Your task to perform on an android device: find snoozed emails in the gmail app Image 0: 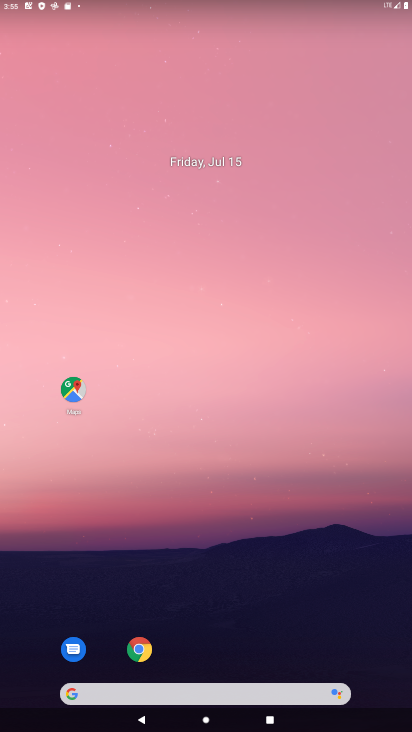
Step 0: drag from (308, 620) to (222, 128)
Your task to perform on an android device: find snoozed emails in the gmail app Image 1: 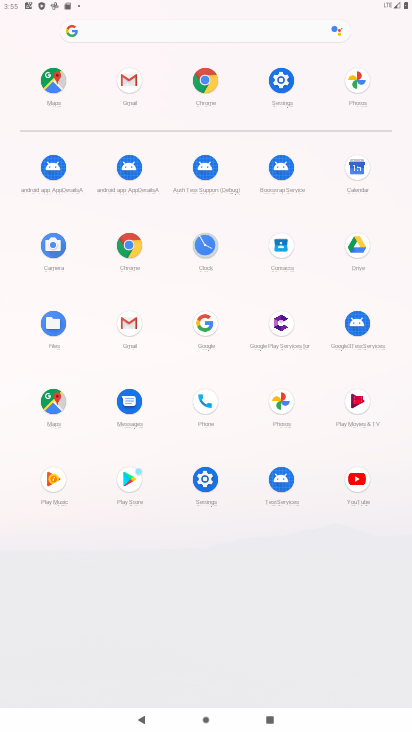
Step 1: click (130, 323)
Your task to perform on an android device: find snoozed emails in the gmail app Image 2: 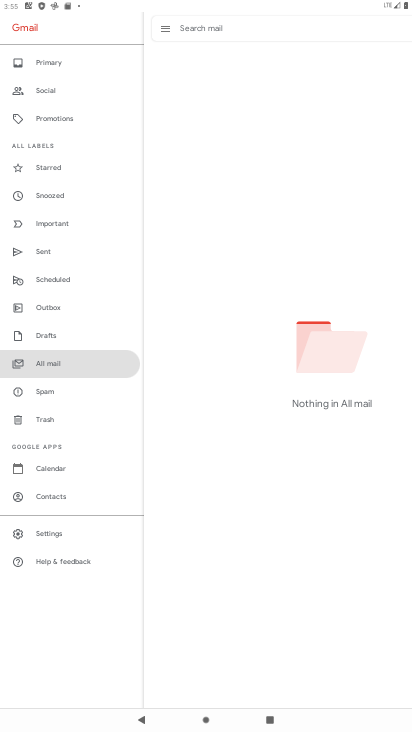
Step 2: click (55, 198)
Your task to perform on an android device: find snoozed emails in the gmail app Image 3: 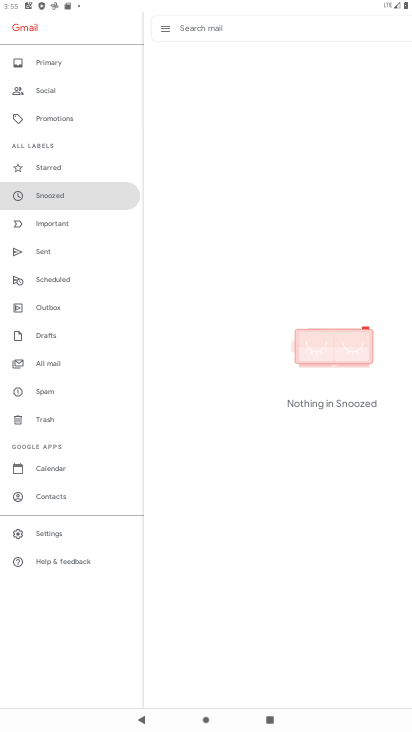
Step 3: task complete